Your task to perform on an android device: set an alarm Image 0: 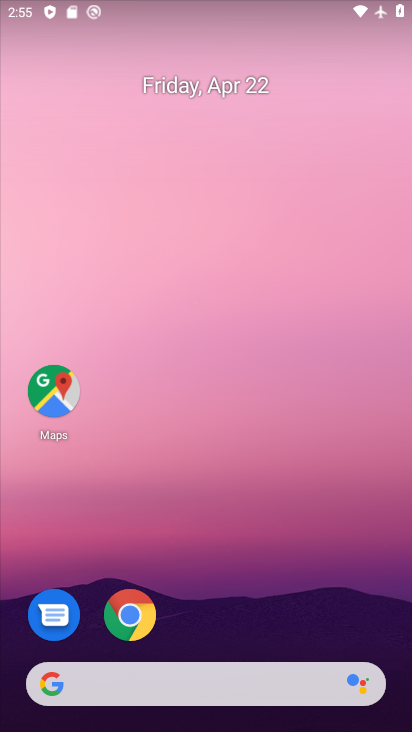
Step 0: drag from (302, 597) to (180, 114)
Your task to perform on an android device: set an alarm Image 1: 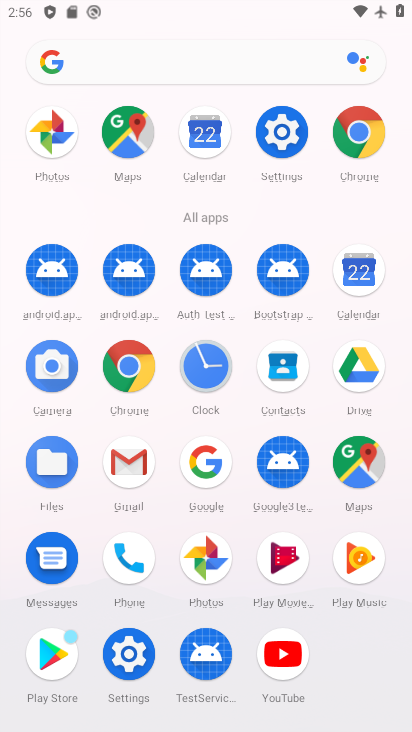
Step 1: click (210, 346)
Your task to perform on an android device: set an alarm Image 2: 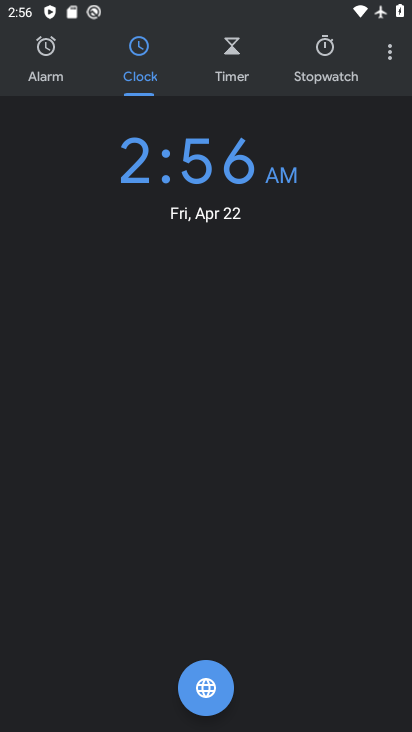
Step 2: click (60, 65)
Your task to perform on an android device: set an alarm Image 3: 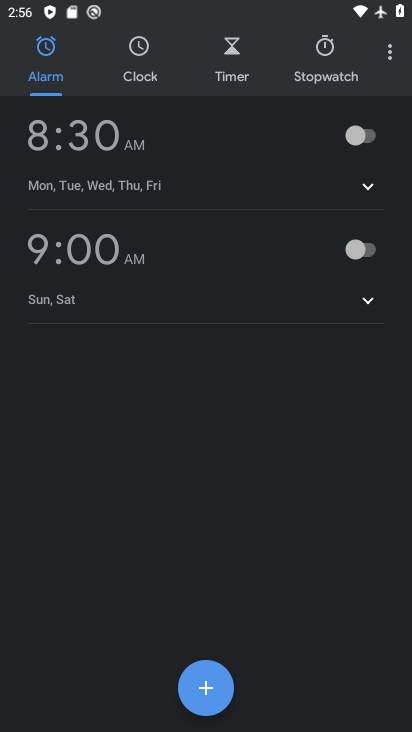
Step 3: click (218, 682)
Your task to perform on an android device: set an alarm Image 4: 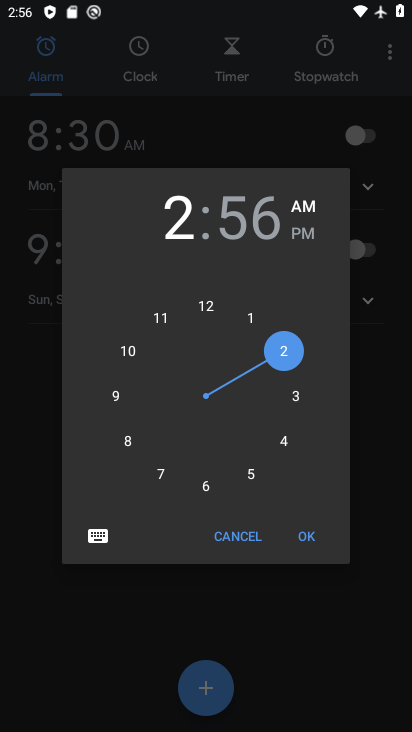
Step 4: click (285, 438)
Your task to perform on an android device: set an alarm Image 5: 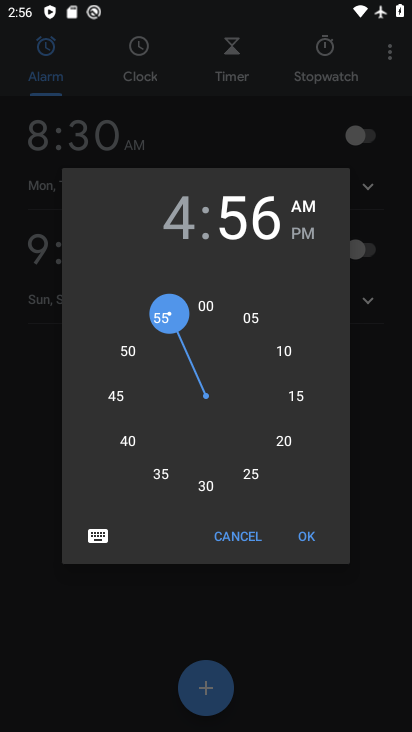
Step 5: click (309, 515)
Your task to perform on an android device: set an alarm Image 6: 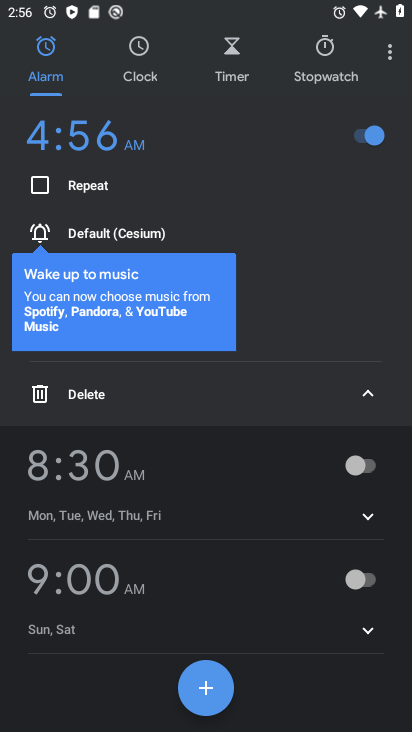
Step 6: task complete